Your task to perform on an android device: open chrome privacy settings Image 0: 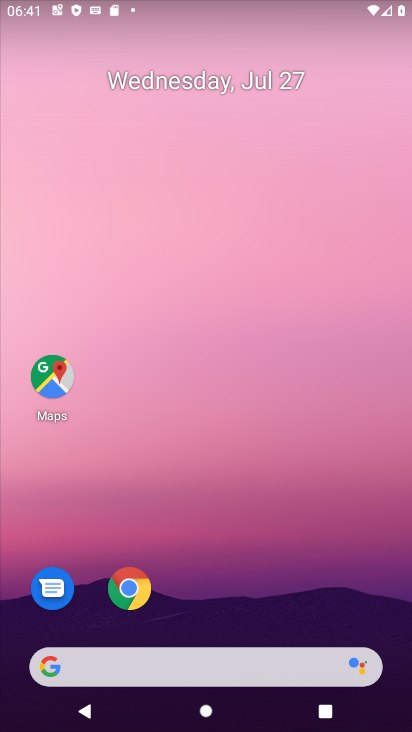
Step 0: drag from (250, 684) to (298, 15)
Your task to perform on an android device: open chrome privacy settings Image 1: 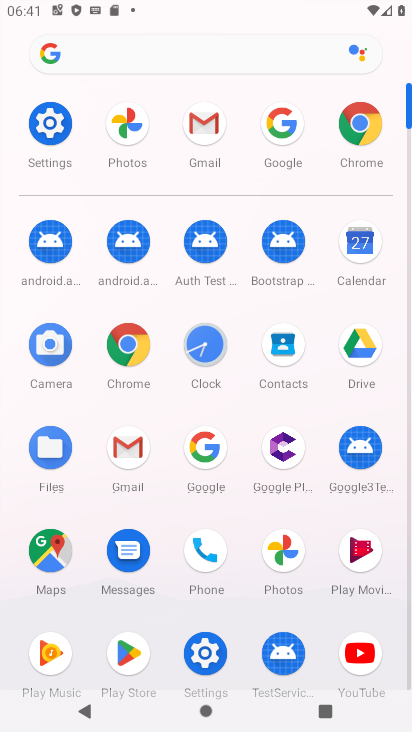
Step 1: click (41, 126)
Your task to perform on an android device: open chrome privacy settings Image 2: 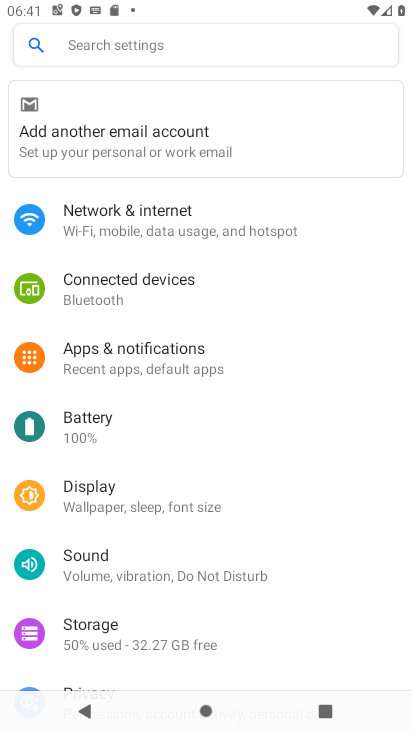
Step 2: drag from (158, 654) to (140, 249)
Your task to perform on an android device: open chrome privacy settings Image 3: 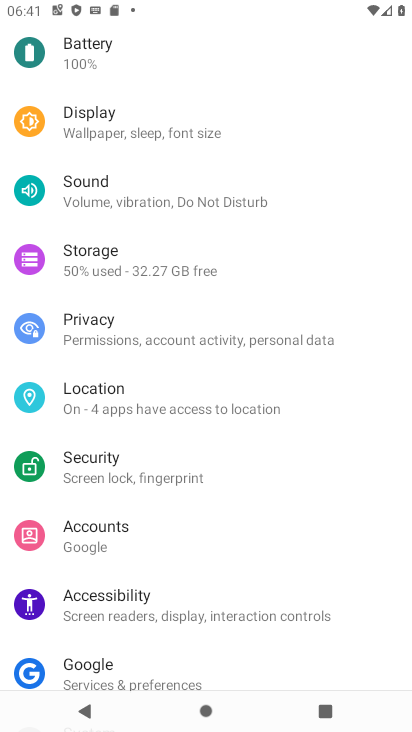
Step 3: click (132, 330)
Your task to perform on an android device: open chrome privacy settings Image 4: 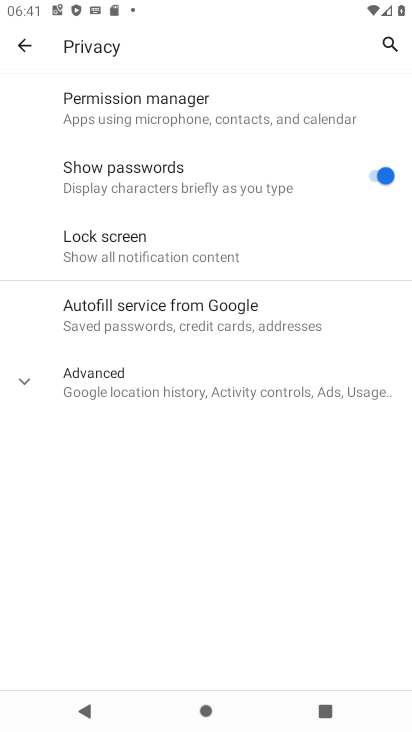
Step 4: press home button
Your task to perform on an android device: open chrome privacy settings Image 5: 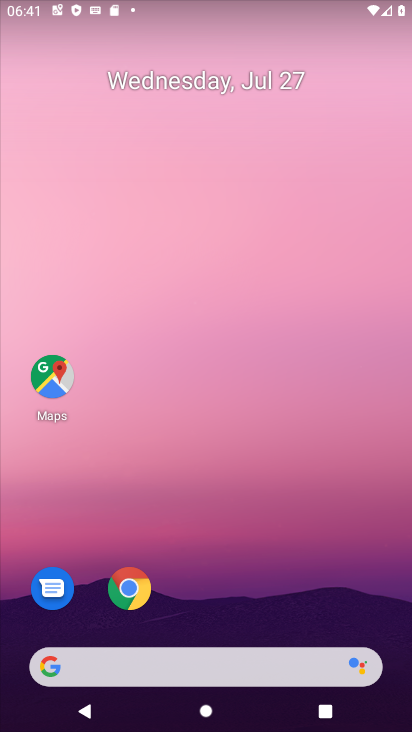
Step 5: drag from (288, 672) to (310, 1)
Your task to perform on an android device: open chrome privacy settings Image 6: 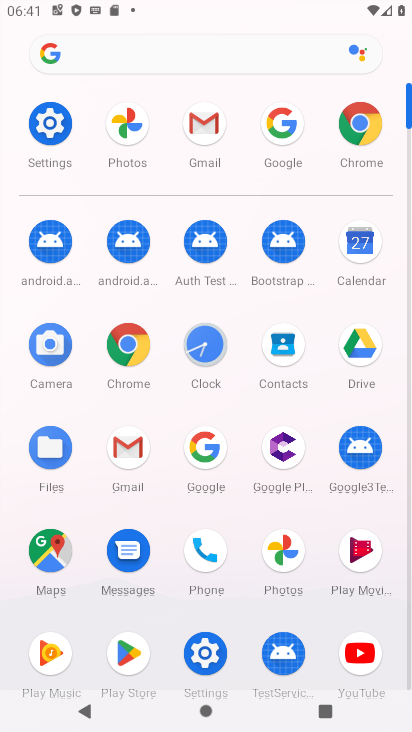
Step 6: click (133, 340)
Your task to perform on an android device: open chrome privacy settings Image 7: 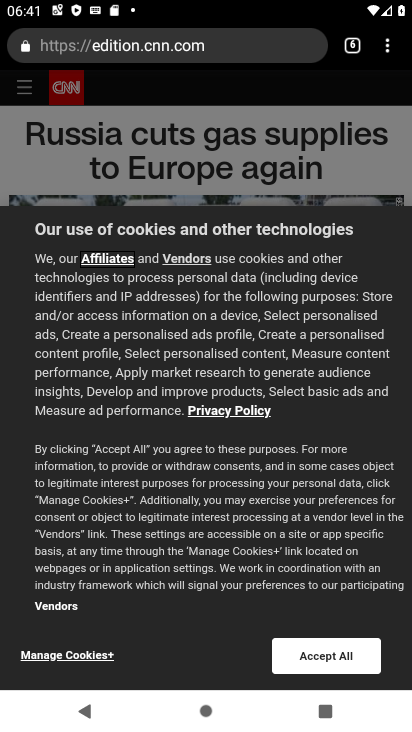
Step 7: click (388, 44)
Your task to perform on an android device: open chrome privacy settings Image 8: 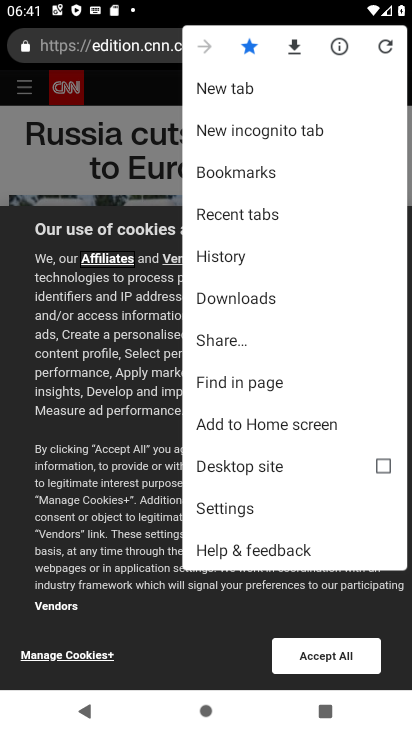
Step 8: click (261, 505)
Your task to perform on an android device: open chrome privacy settings Image 9: 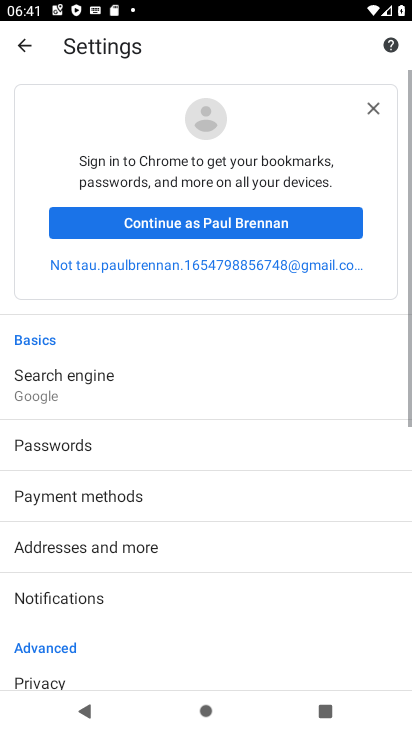
Step 9: drag from (122, 572) to (172, 225)
Your task to perform on an android device: open chrome privacy settings Image 10: 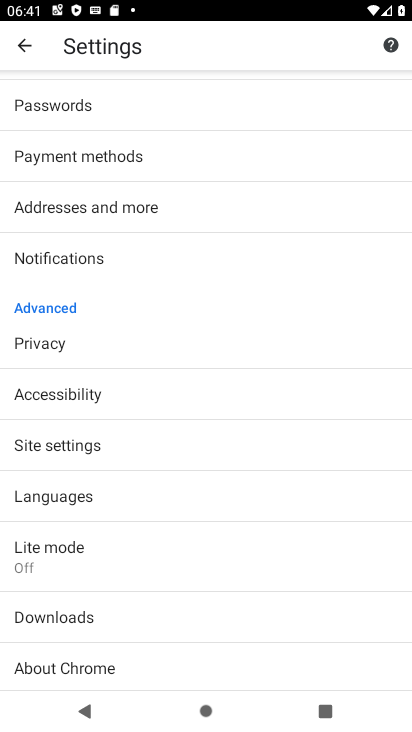
Step 10: click (68, 347)
Your task to perform on an android device: open chrome privacy settings Image 11: 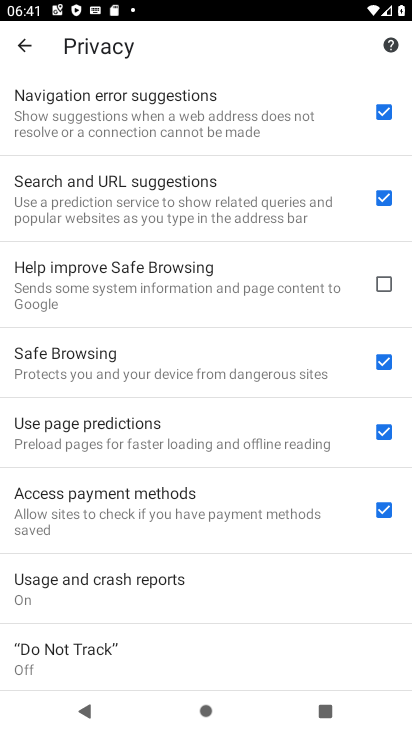
Step 11: task complete